Your task to perform on an android device: What's on my calendar today? Image 0: 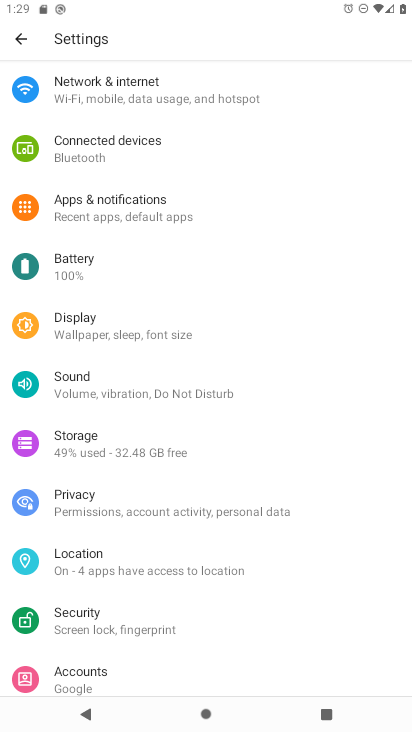
Step 0: press home button
Your task to perform on an android device: What's on my calendar today? Image 1: 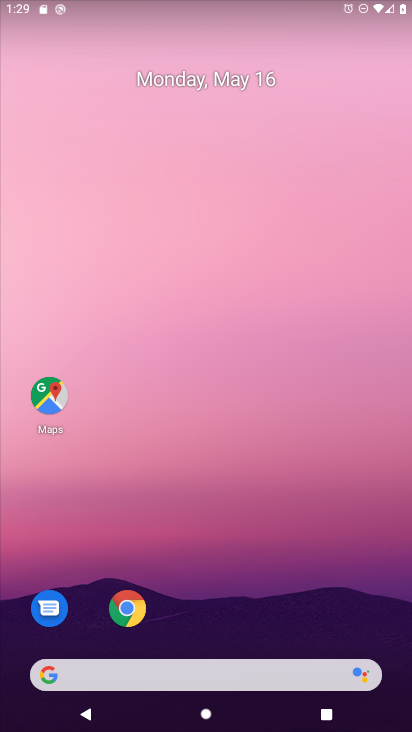
Step 1: drag from (215, 574) to (251, 189)
Your task to perform on an android device: What's on my calendar today? Image 2: 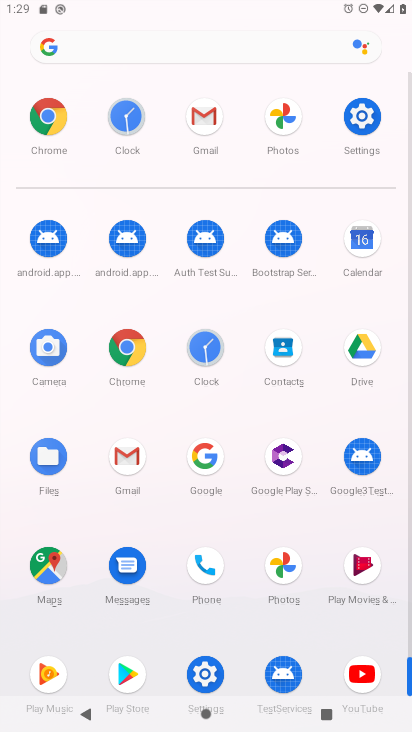
Step 2: click (368, 248)
Your task to perform on an android device: What's on my calendar today? Image 3: 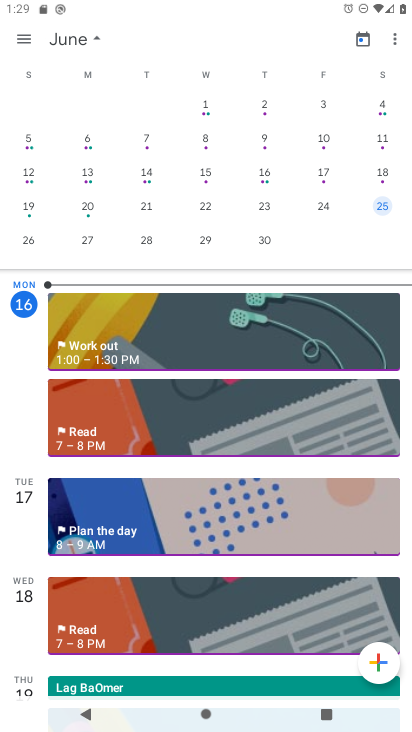
Step 3: click (71, 48)
Your task to perform on an android device: What's on my calendar today? Image 4: 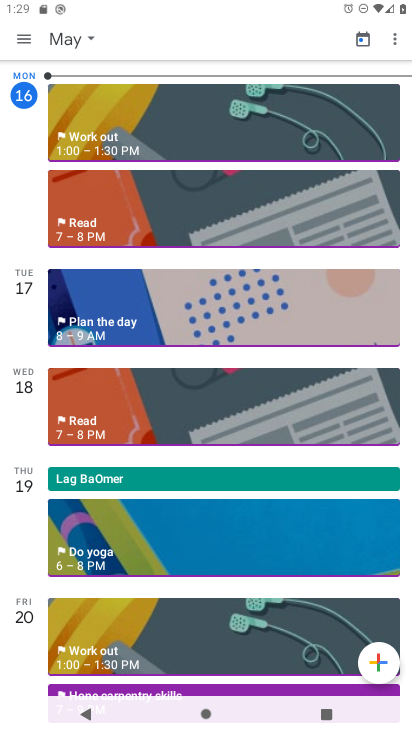
Step 4: click (75, 46)
Your task to perform on an android device: What's on my calendar today? Image 5: 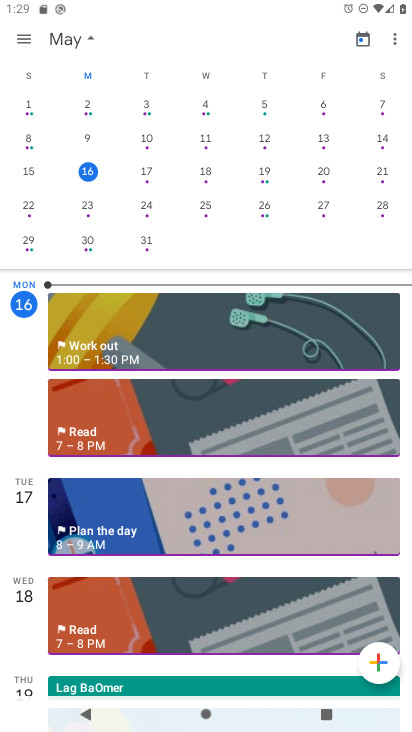
Step 5: click (88, 172)
Your task to perform on an android device: What's on my calendar today? Image 6: 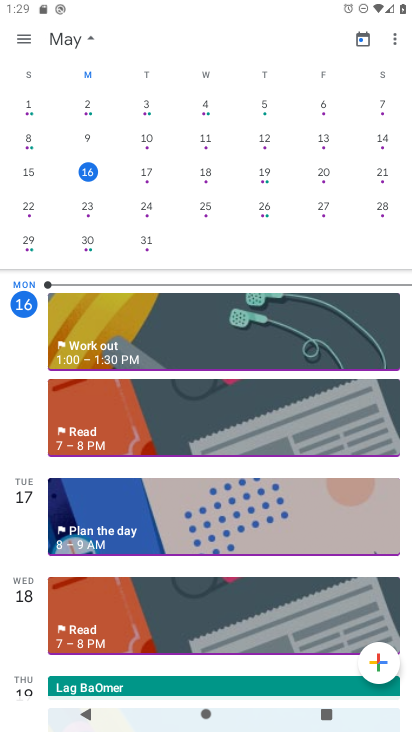
Step 6: task complete